Your task to perform on an android device: turn vacation reply on in the gmail app Image 0: 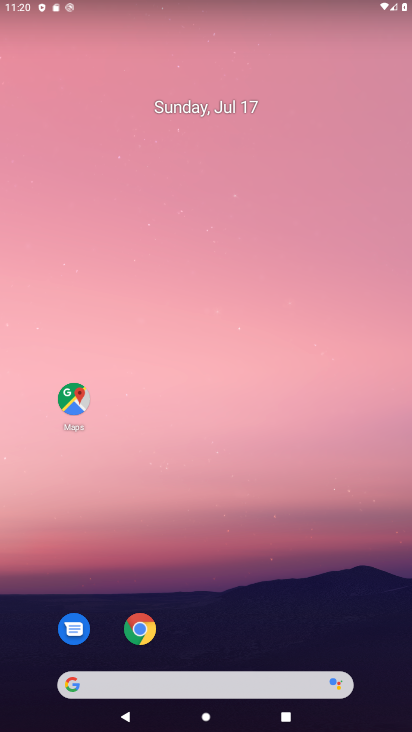
Step 0: press home button
Your task to perform on an android device: turn vacation reply on in the gmail app Image 1: 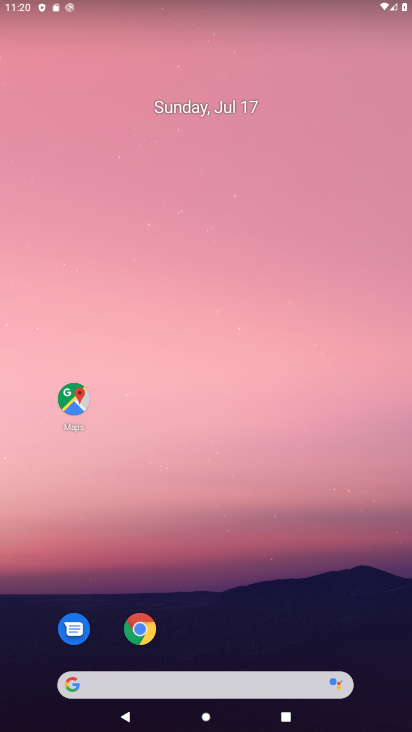
Step 1: drag from (301, 631) to (349, 366)
Your task to perform on an android device: turn vacation reply on in the gmail app Image 2: 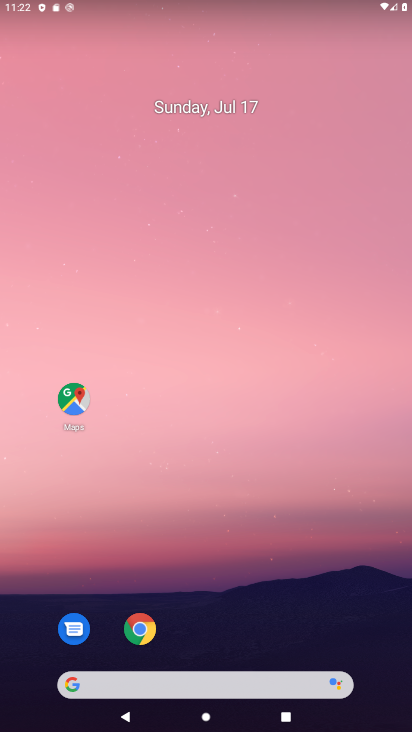
Step 2: drag from (384, 526) to (257, 18)
Your task to perform on an android device: turn vacation reply on in the gmail app Image 3: 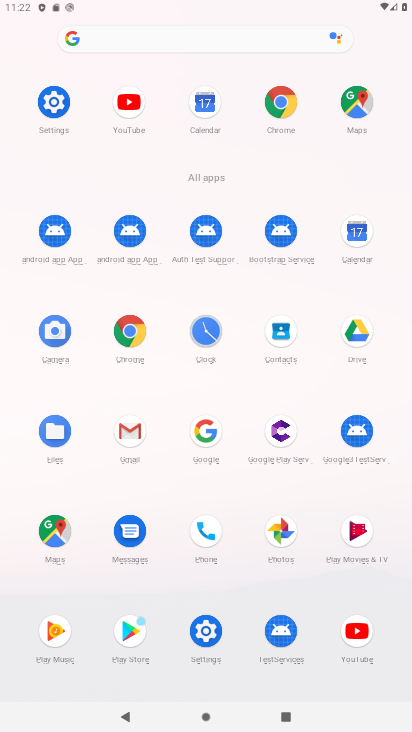
Step 3: click (142, 420)
Your task to perform on an android device: turn vacation reply on in the gmail app Image 4: 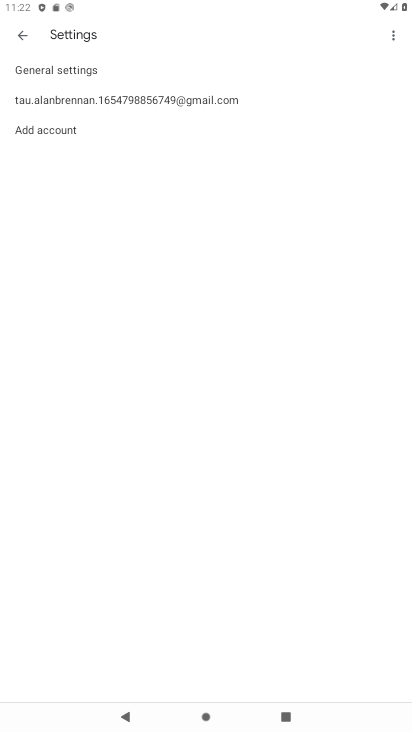
Step 4: click (153, 93)
Your task to perform on an android device: turn vacation reply on in the gmail app Image 5: 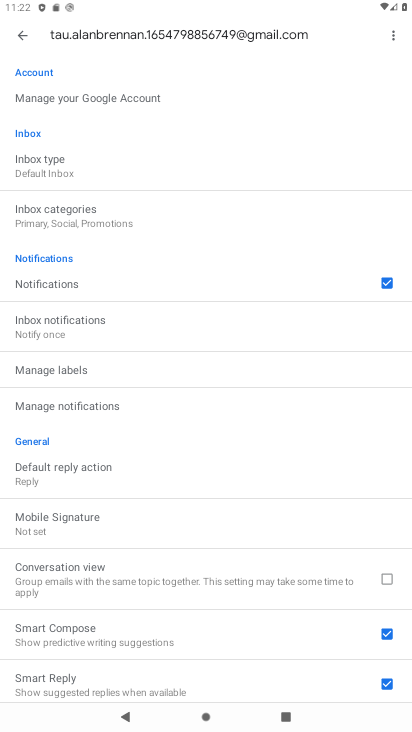
Step 5: drag from (222, 606) to (245, 155)
Your task to perform on an android device: turn vacation reply on in the gmail app Image 6: 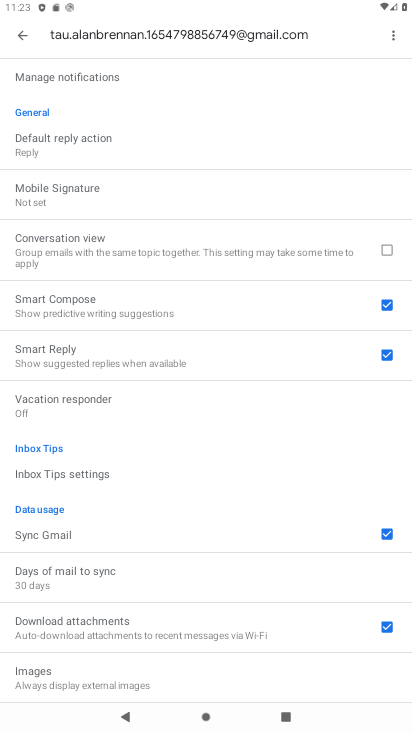
Step 6: drag from (136, 466) to (241, 24)
Your task to perform on an android device: turn vacation reply on in the gmail app Image 7: 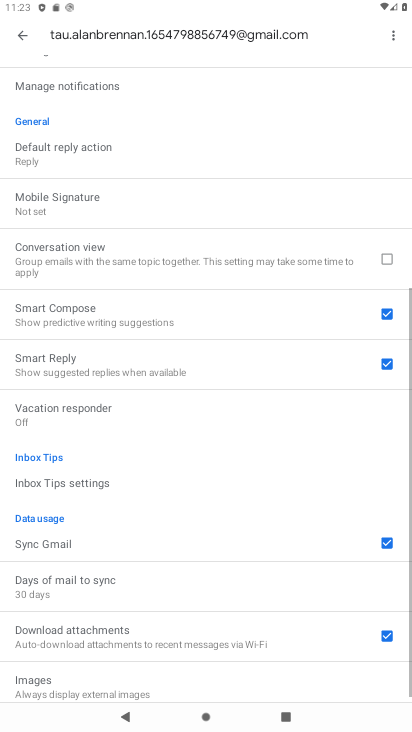
Step 7: drag from (244, 655) to (235, 191)
Your task to perform on an android device: turn vacation reply on in the gmail app Image 8: 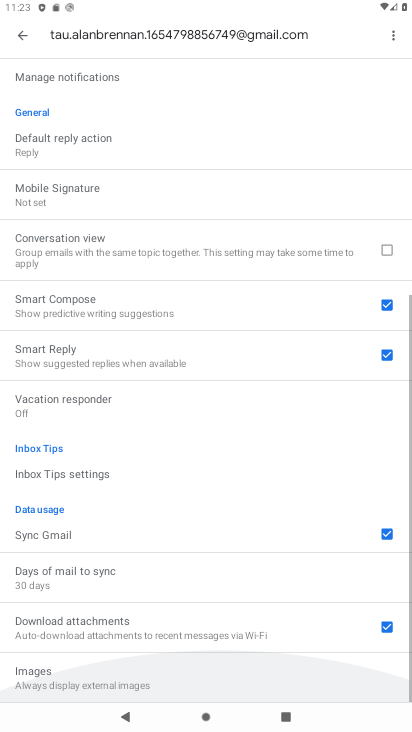
Step 8: drag from (255, 168) to (344, 34)
Your task to perform on an android device: turn vacation reply on in the gmail app Image 9: 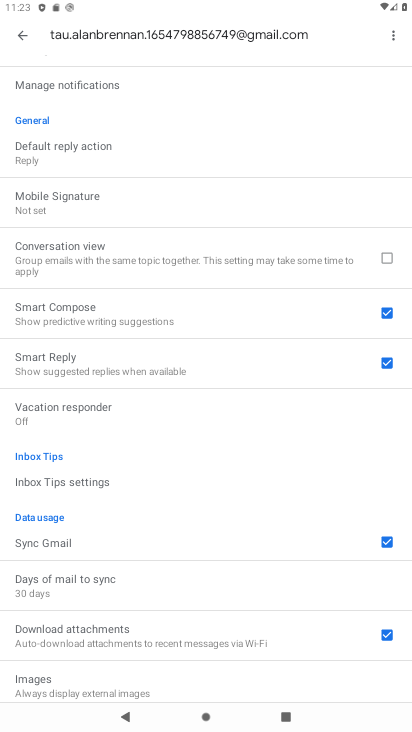
Step 9: click (50, 409)
Your task to perform on an android device: turn vacation reply on in the gmail app Image 10: 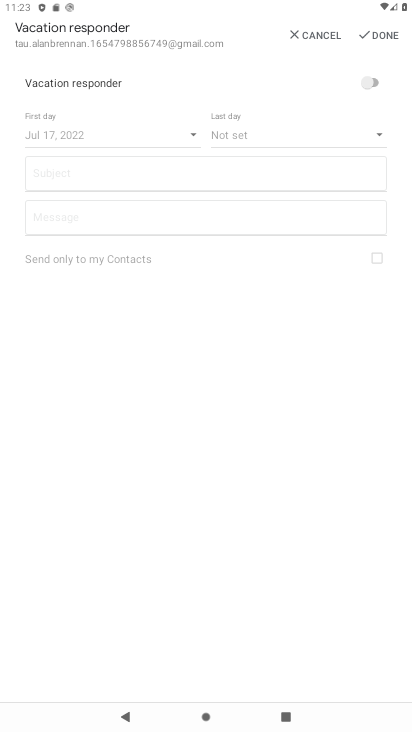
Step 10: click (173, 171)
Your task to perform on an android device: turn vacation reply on in the gmail app Image 11: 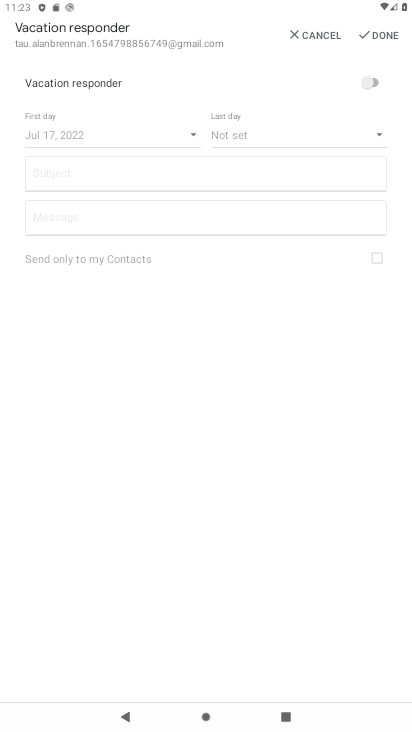
Step 11: click (140, 166)
Your task to perform on an android device: turn vacation reply on in the gmail app Image 12: 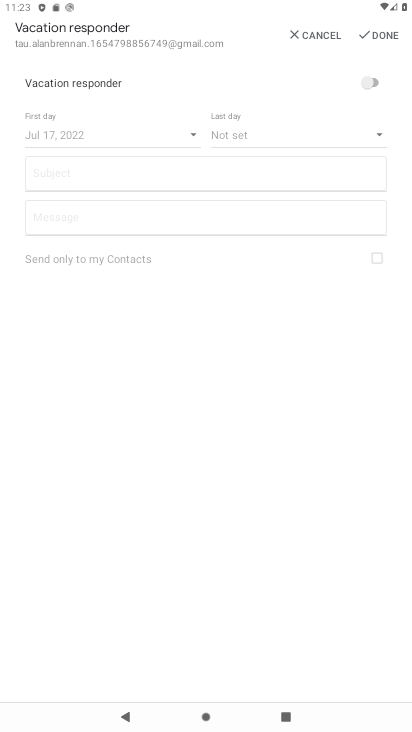
Step 12: click (352, 87)
Your task to perform on an android device: turn vacation reply on in the gmail app Image 13: 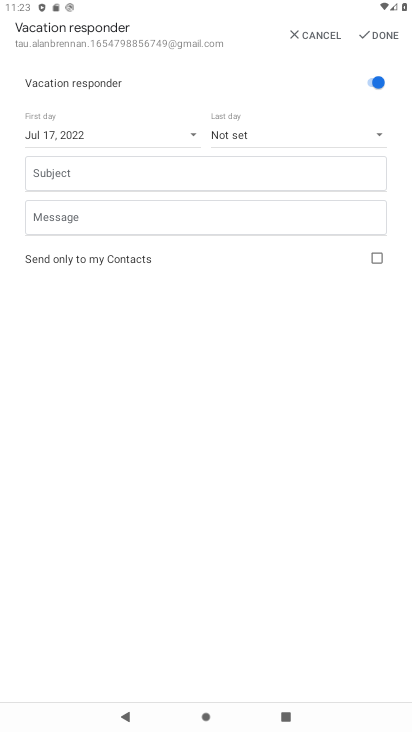
Step 13: click (354, 158)
Your task to perform on an android device: turn vacation reply on in the gmail app Image 14: 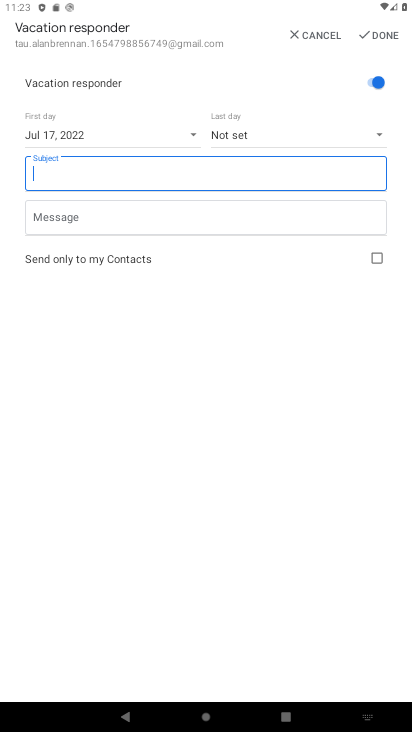
Step 14: type "hg;"
Your task to perform on an android device: turn vacation reply on in the gmail app Image 15: 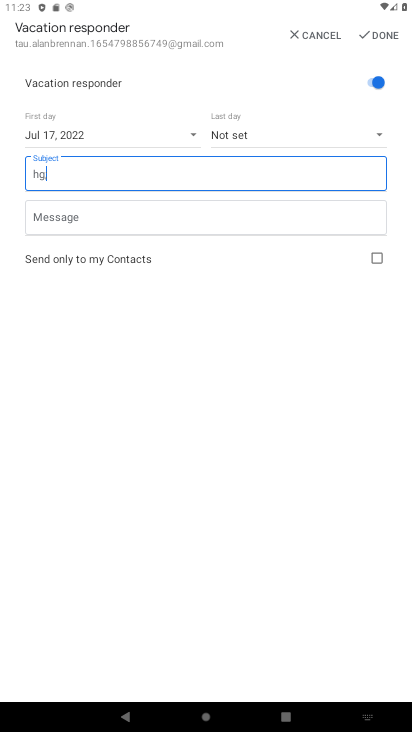
Step 15: click (115, 219)
Your task to perform on an android device: turn vacation reply on in the gmail app Image 16: 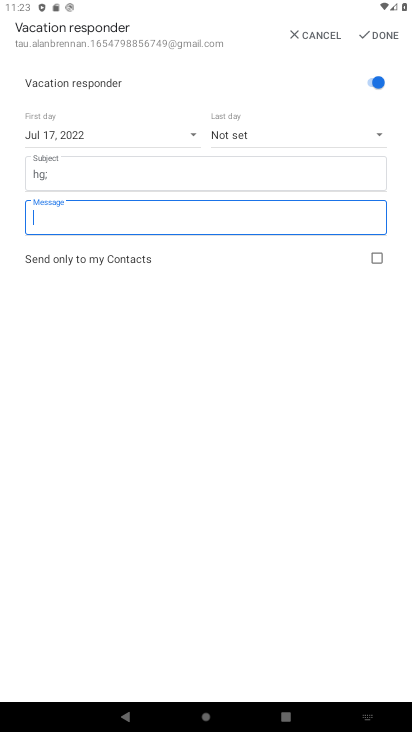
Step 16: type "hgcfcghgt"
Your task to perform on an android device: turn vacation reply on in the gmail app Image 17: 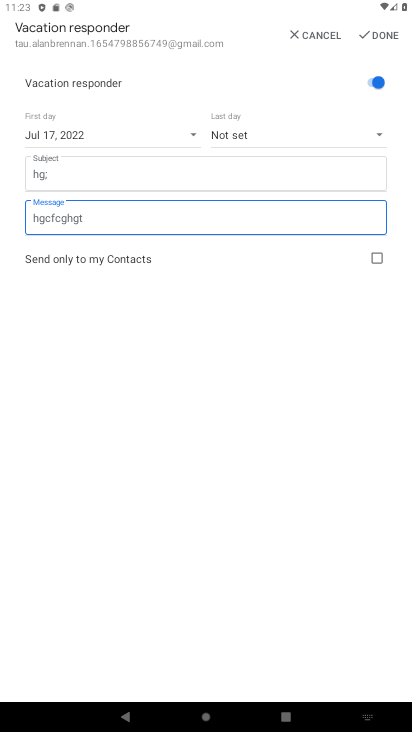
Step 17: click (102, 148)
Your task to perform on an android device: turn vacation reply on in the gmail app Image 18: 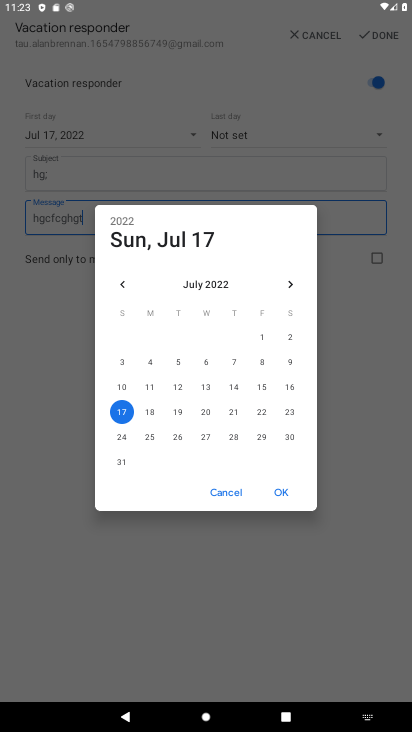
Step 18: click (281, 484)
Your task to perform on an android device: turn vacation reply on in the gmail app Image 19: 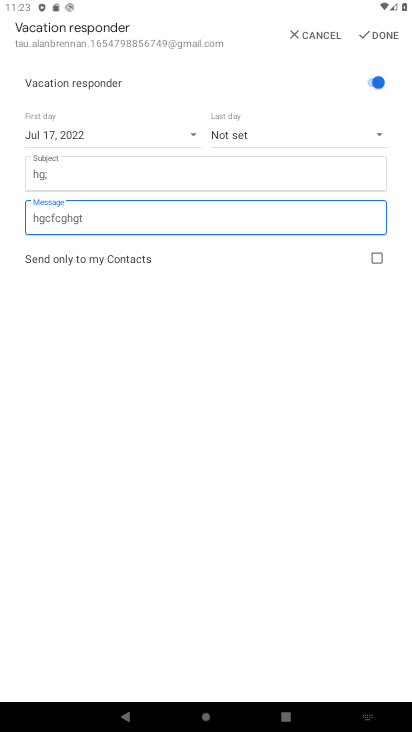
Step 19: click (255, 135)
Your task to perform on an android device: turn vacation reply on in the gmail app Image 20: 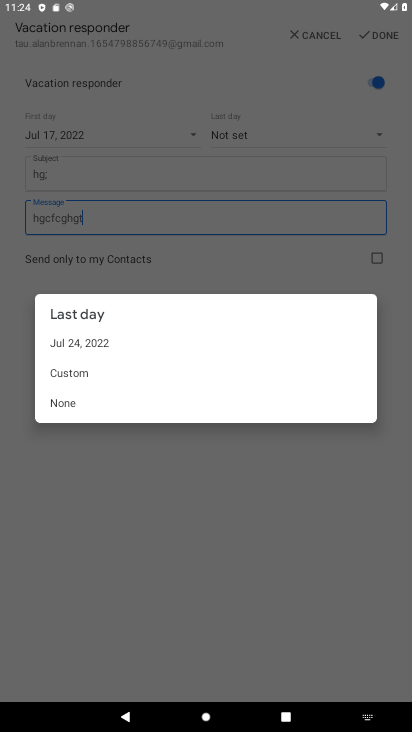
Step 20: click (69, 350)
Your task to perform on an android device: turn vacation reply on in the gmail app Image 21: 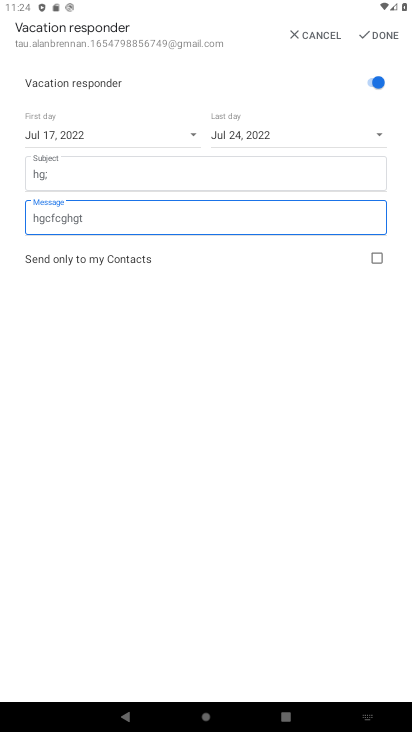
Step 21: click (304, 141)
Your task to perform on an android device: turn vacation reply on in the gmail app Image 22: 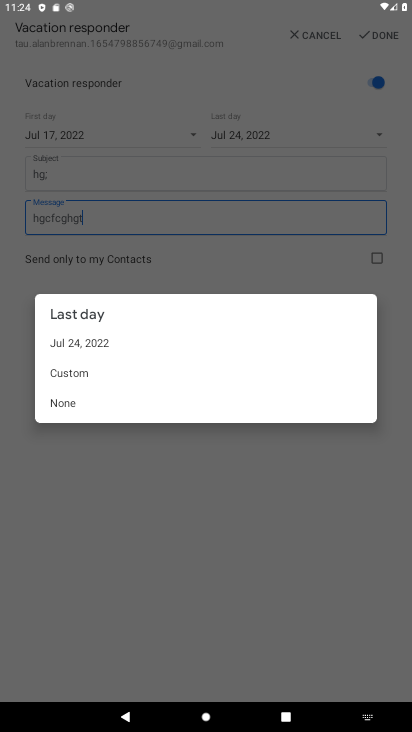
Step 22: click (72, 343)
Your task to perform on an android device: turn vacation reply on in the gmail app Image 23: 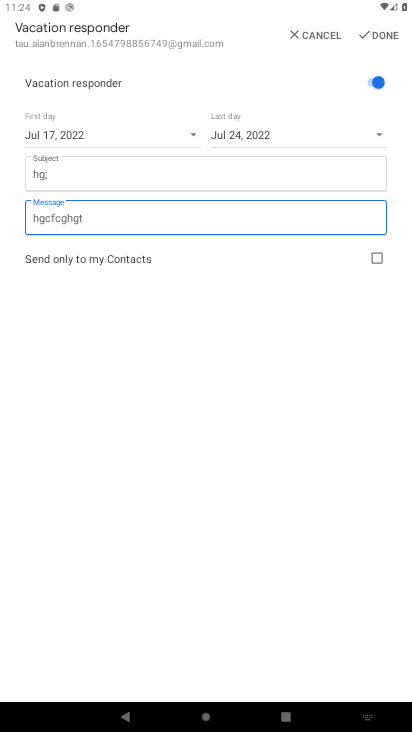
Step 23: click (377, 34)
Your task to perform on an android device: turn vacation reply on in the gmail app Image 24: 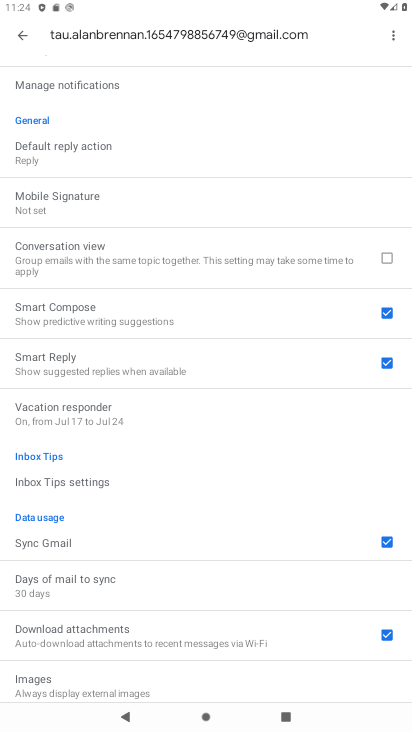
Step 24: task complete